Your task to perform on an android device: open app "Booking.com: Hotels and more" (install if not already installed), go to login, and select forgot password Image 0: 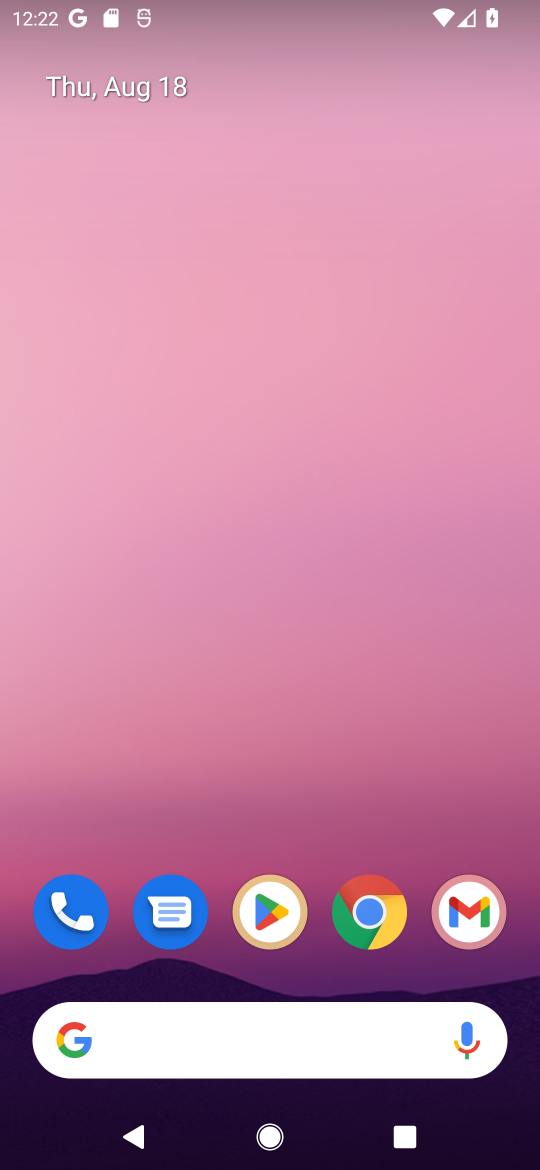
Step 0: click (292, 901)
Your task to perform on an android device: open app "Booking.com: Hotels and more" (install if not already installed), go to login, and select forgot password Image 1: 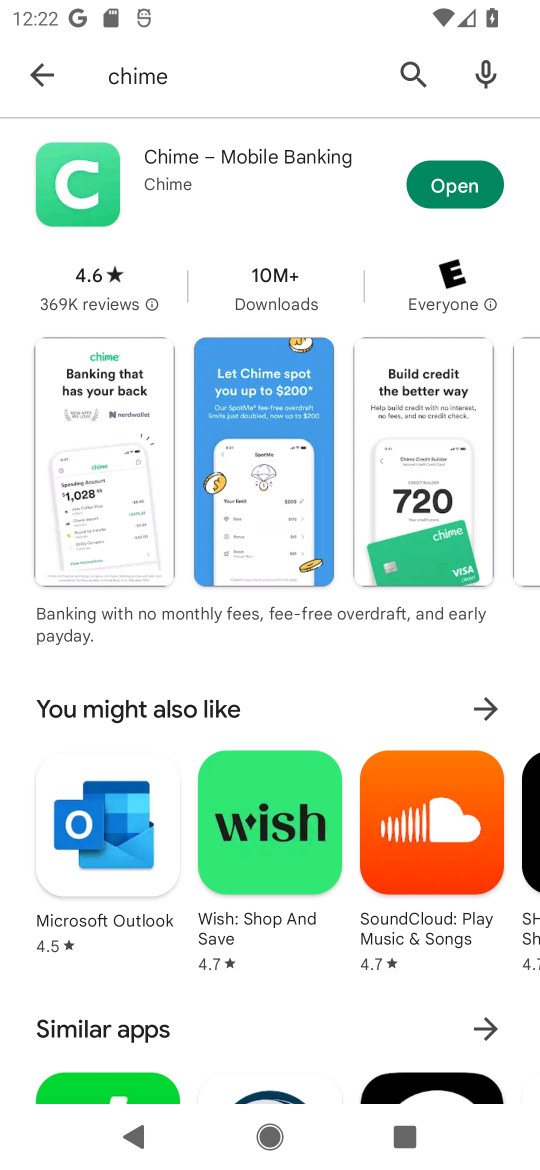
Step 1: click (428, 64)
Your task to perform on an android device: open app "Booking.com: Hotels and more" (install if not already installed), go to login, and select forgot password Image 2: 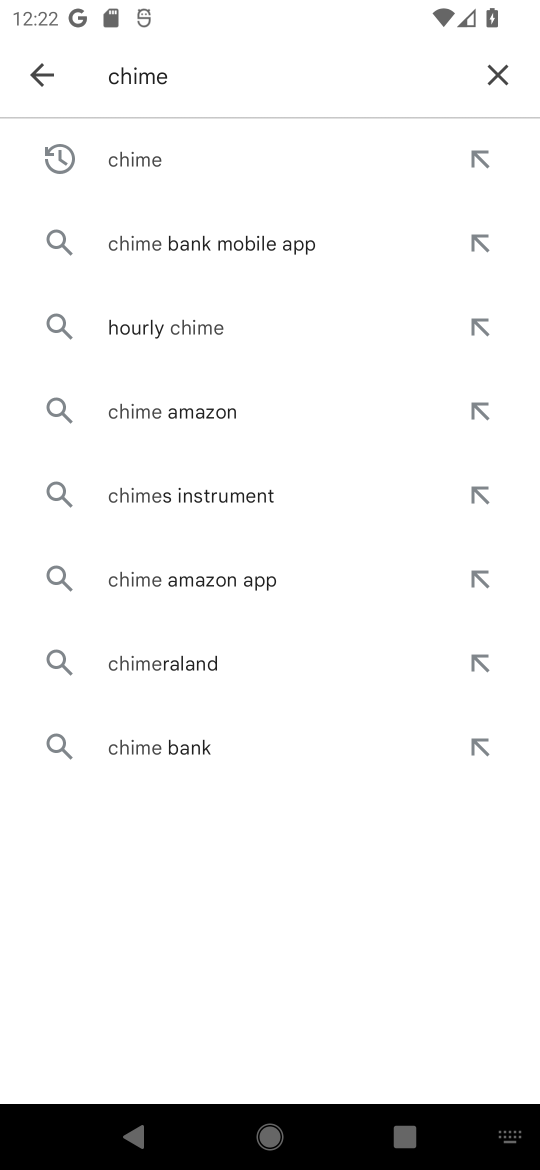
Step 2: click (492, 80)
Your task to perform on an android device: open app "Booking.com: Hotels and more" (install if not already installed), go to login, and select forgot password Image 3: 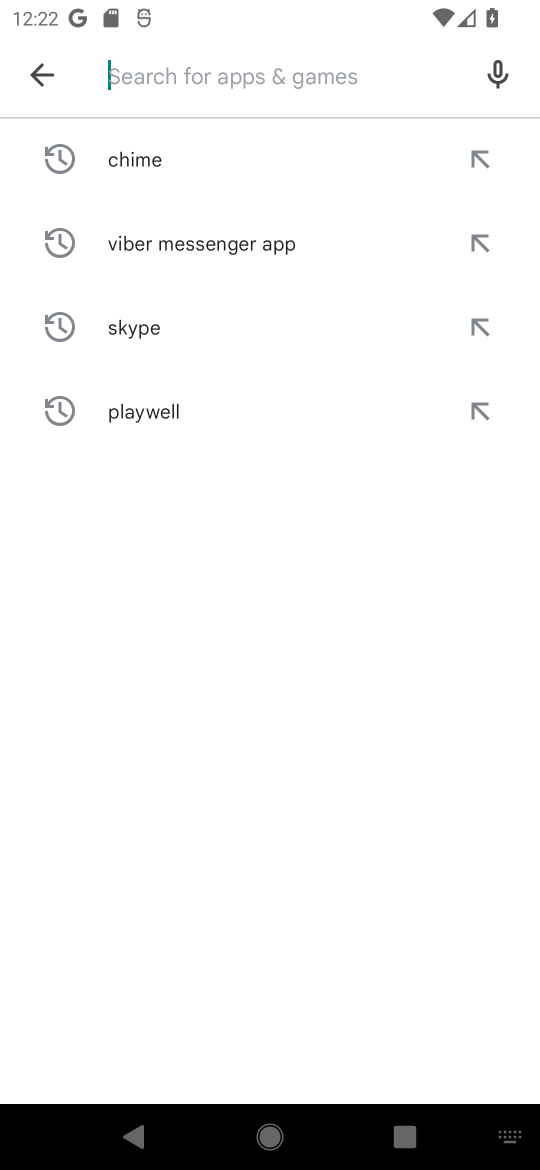
Step 3: click (176, 86)
Your task to perform on an android device: open app "Booking.com: Hotels and more" (install if not already installed), go to login, and select forgot password Image 4: 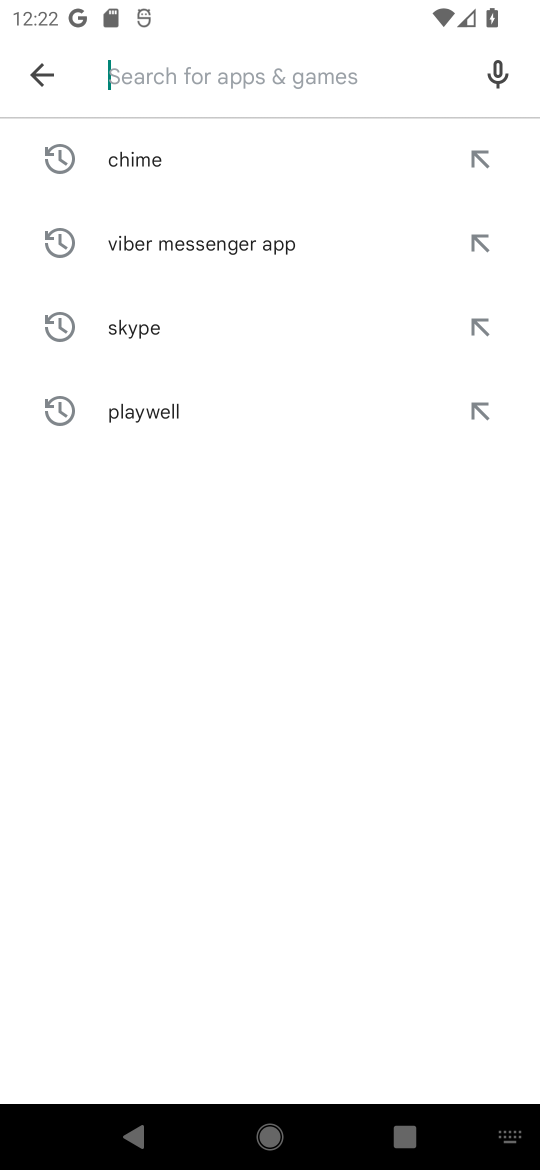
Step 4: type "Booking.com"
Your task to perform on an android device: open app "Booking.com: Hotels and more" (install if not already installed), go to login, and select forgot password Image 5: 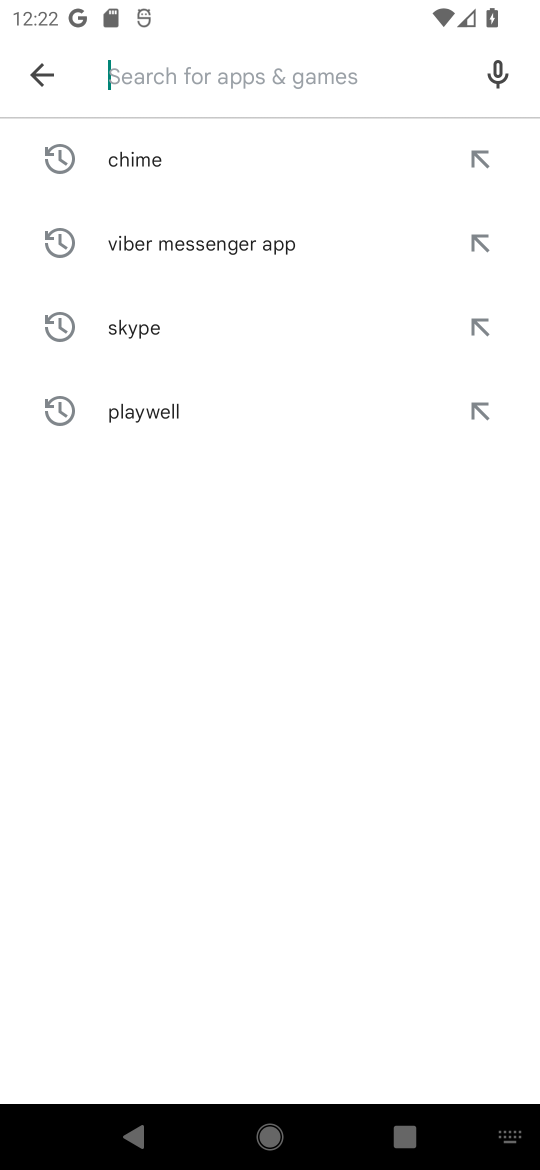
Step 5: click (171, 753)
Your task to perform on an android device: open app "Booking.com: Hotels and more" (install if not already installed), go to login, and select forgot password Image 6: 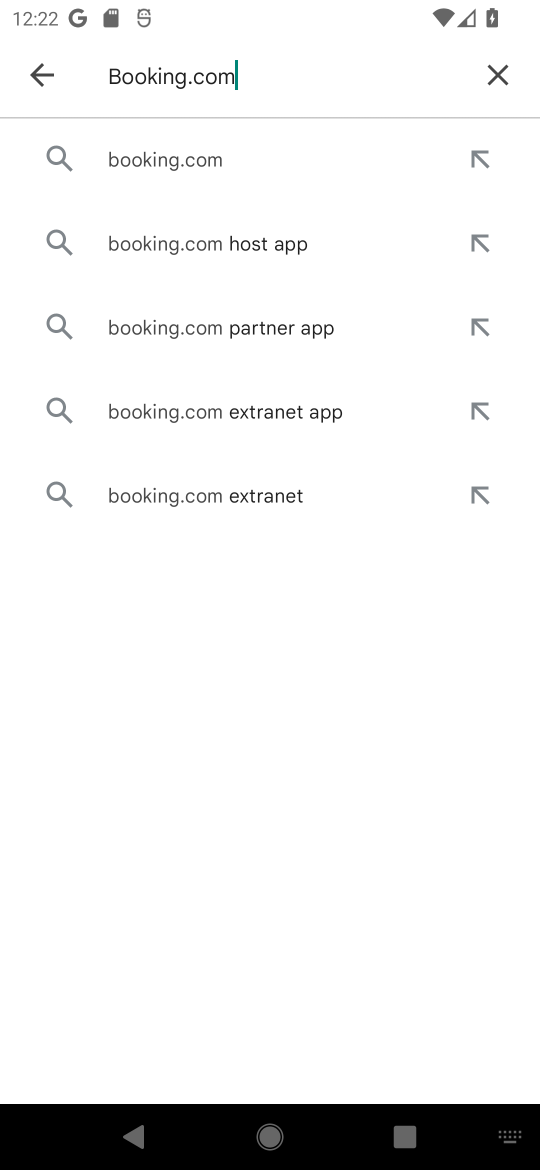
Step 6: click (173, 118)
Your task to perform on an android device: open app "Booking.com: Hotels and more" (install if not already installed), go to login, and select forgot password Image 7: 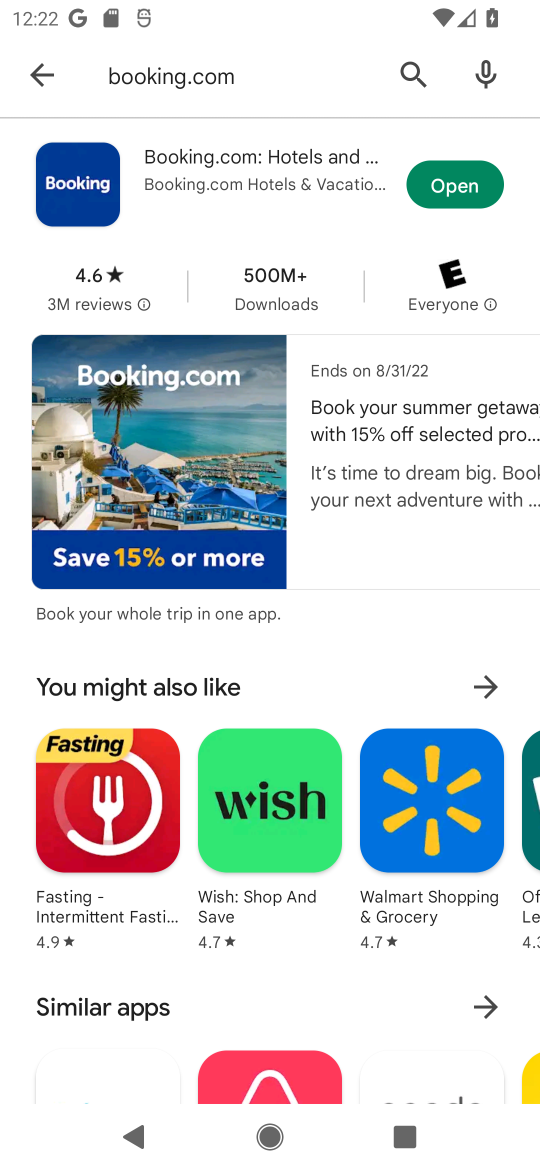
Step 7: click (462, 179)
Your task to perform on an android device: open app "Booking.com: Hotels and more" (install if not already installed), go to login, and select forgot password Image 8: 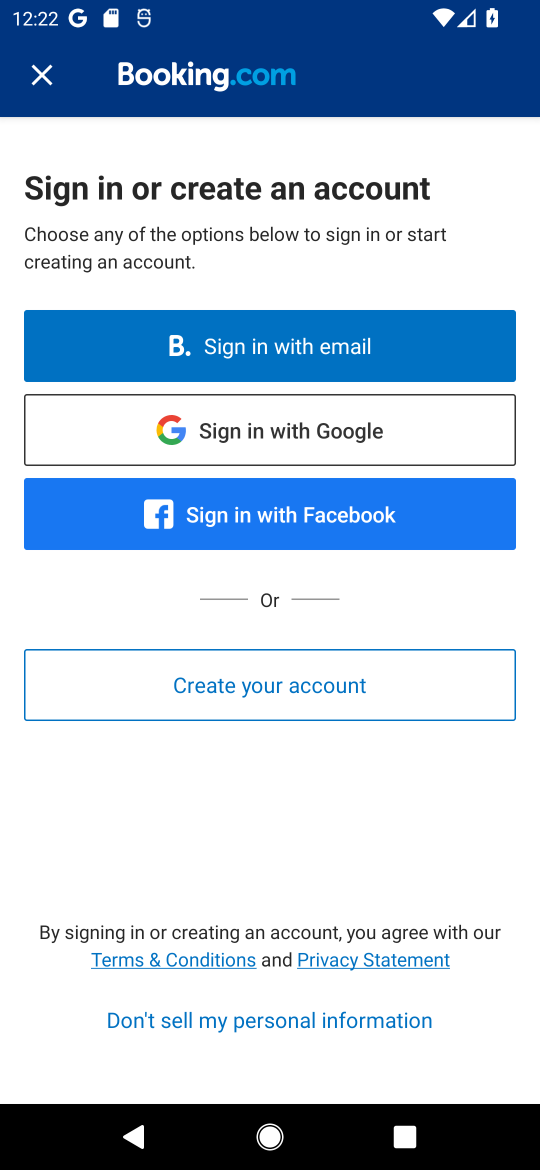
Step 8: task complete